Your task to perform on an android device: turn off translation in the chrome app Image 0: 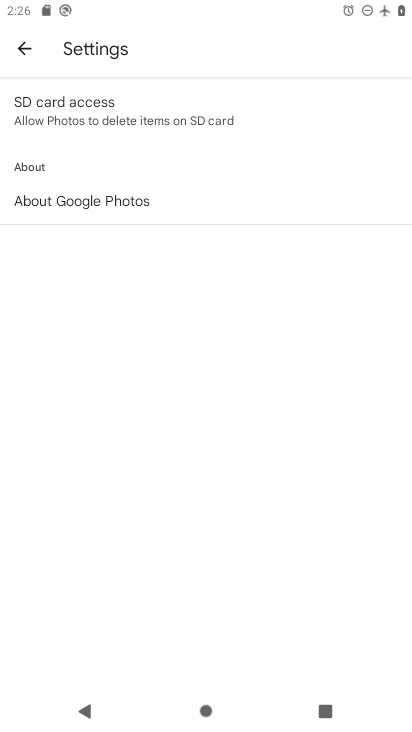
Step 0: press home button
Your task to perform on an android device: turn off translation in the chrome app Image 1: 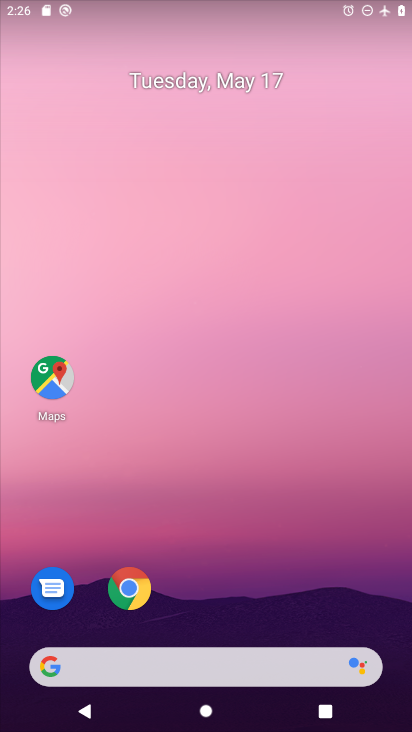
Step 1: click (123, 595)
Your task to perform on an android device: turn off translation in the chrome app Image 2: 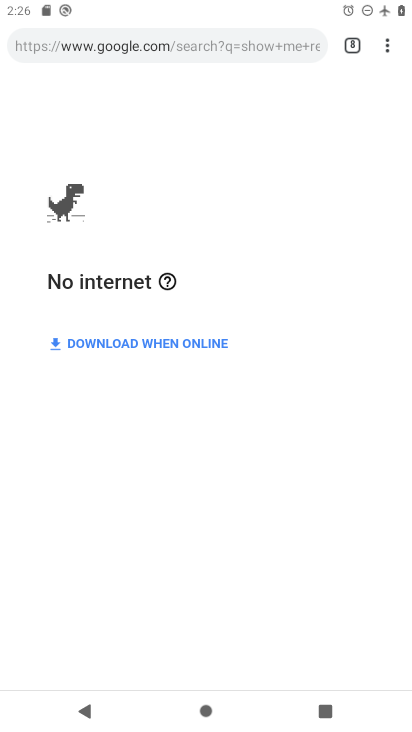
Step 2: click (388, 49)
Your task to perform on an android device: turn off translation in the chrome app Image 3: 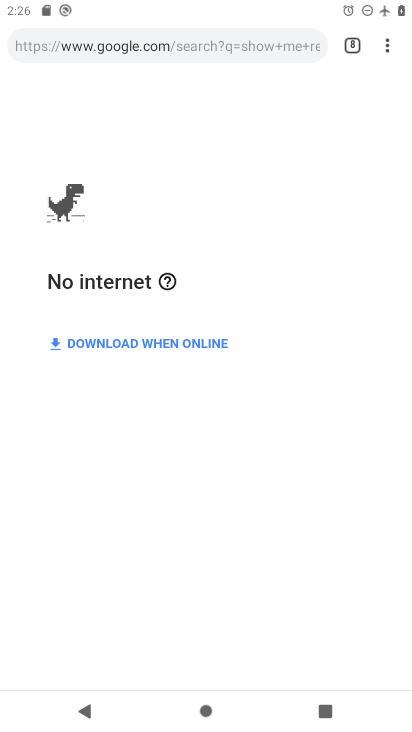
Step 3: click (393, 44)
Your task to perform on an android device: turn off translation in the chrome app Image 4: 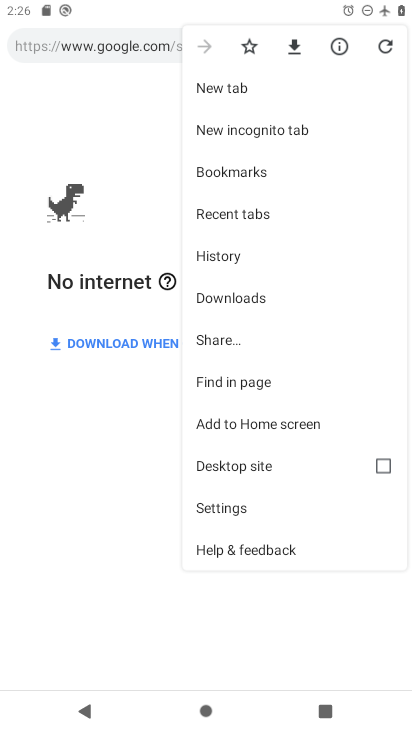
Step 4: click (227, 504)
Your task to perform on an android device: turn off translation in the chrome app Image 5: 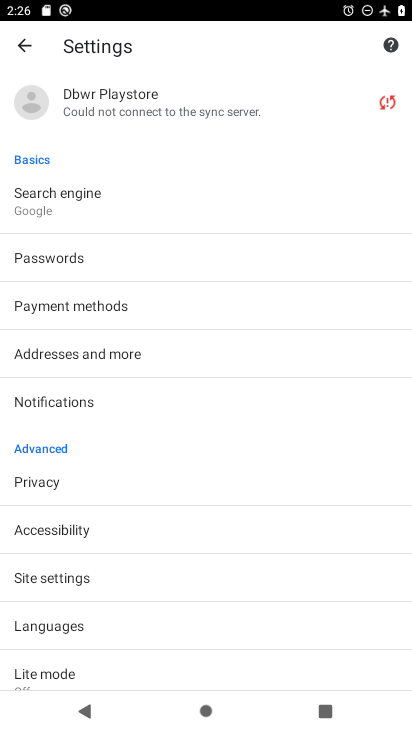
Step 5: click (37, 626)
Your task to perform on an android device: turn off translation in the chrome app Image 6: 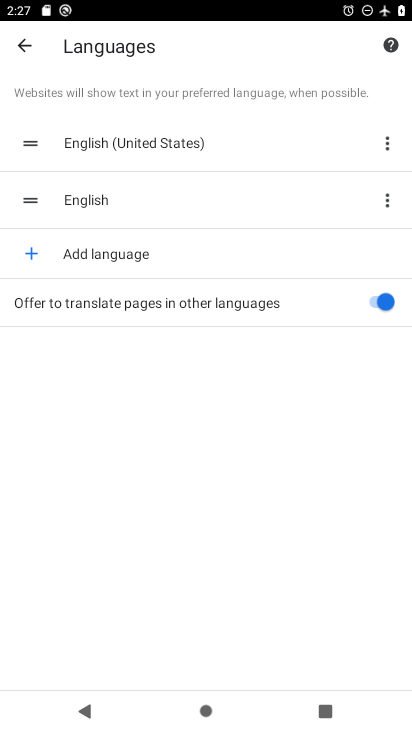
Step 6: click (379, 303)
Your task to perform on an android device: turn off translation in the chrome app Image 7: 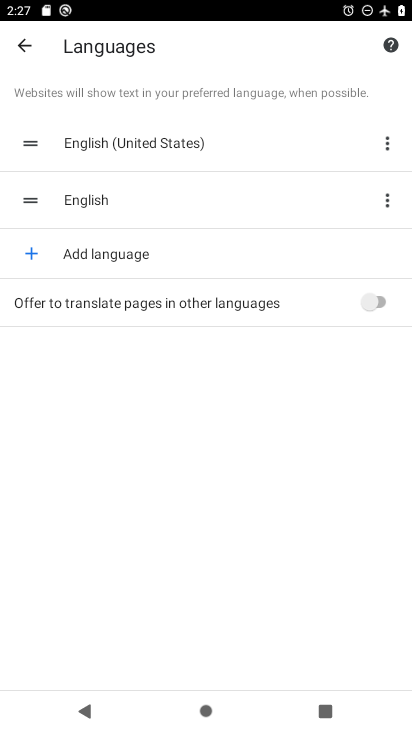
Step 7: task complete